Your task to perform on an android device: Open sound settings Image 0: 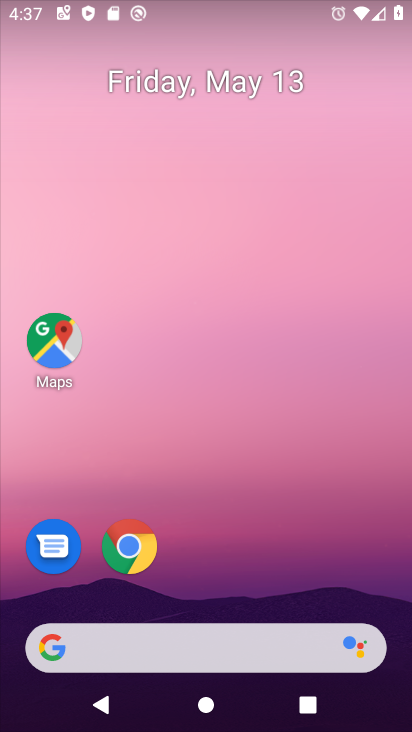
Step 0: drag from (229, 605) to (305, 56)
Your task to perform on an android device: Open sound settings Image 1: 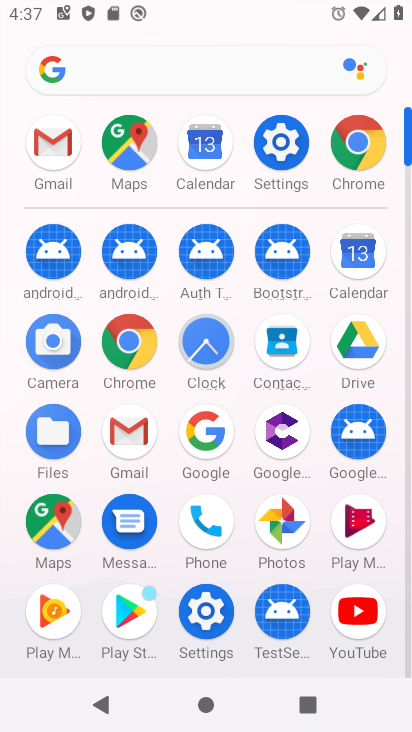
Step 1: click (201, 625)
Your task to perform on an android device: Open sound settings Image 2: 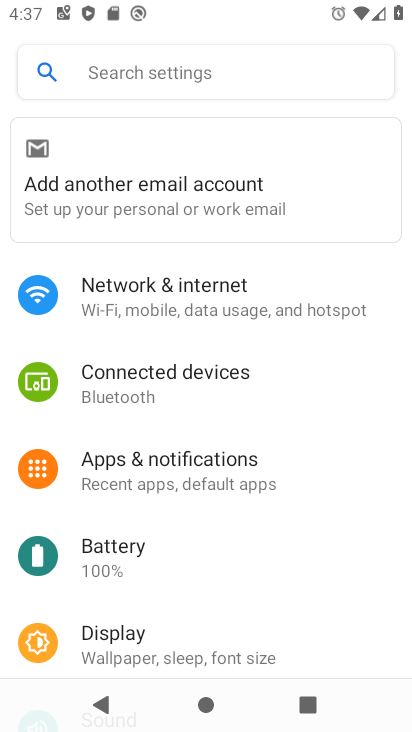
Step 2: drag from (178, 506) to (255, 230)
Your task to perform on an android device: Open sound settings Image 3: 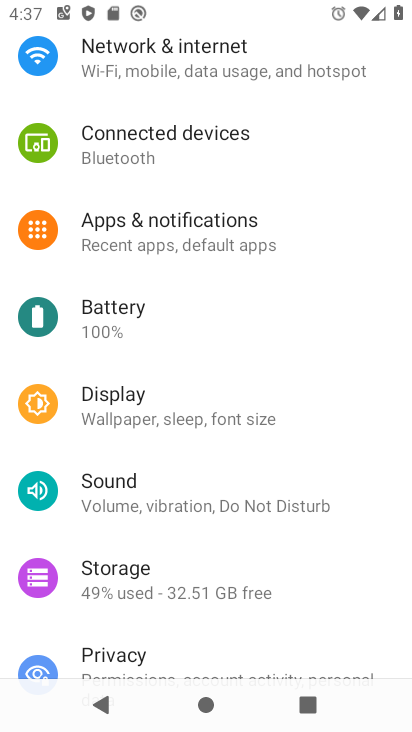
Step 3: click (196, 509)
Your task to perform on an android device: Open sound settings Image 4: 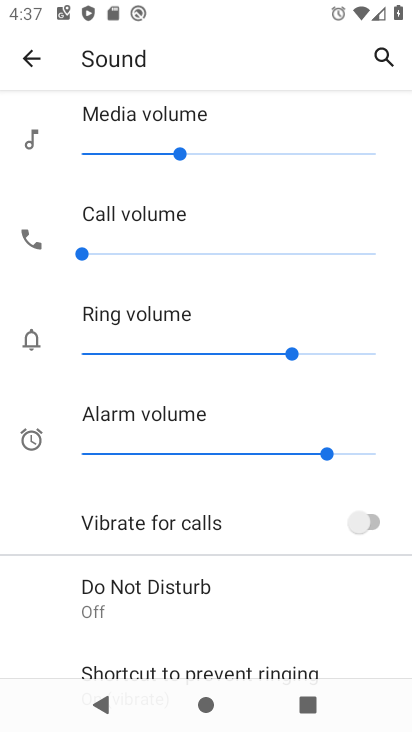
Step 4: task complete